Your task to perform on an android device: Show me productivity apps on the Play Store Image 0: 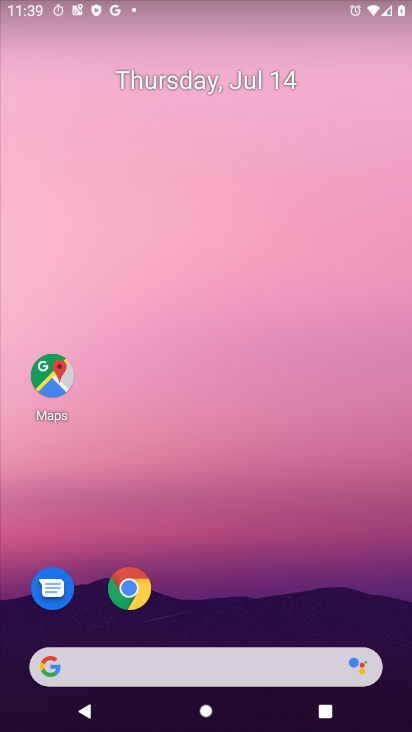
Step 0: press home button
Your task to perform on an android device: Show me productivity apps on the Play Store Image 1: 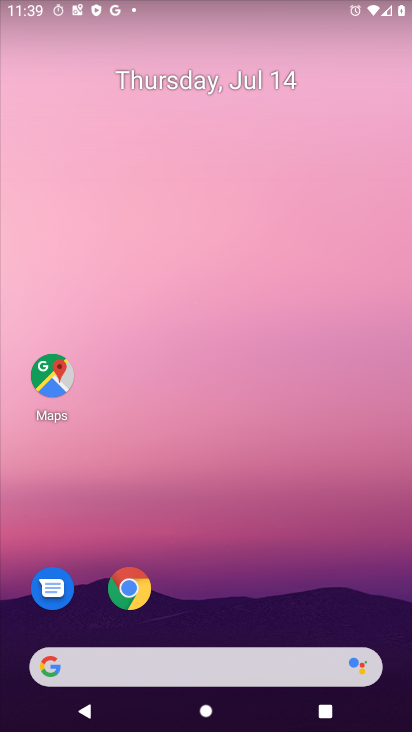
Step 1: drag from (348, 621) to (328, 36)
Your task to perform on an android device: Show me productivity apps on the Play Store Image 2: 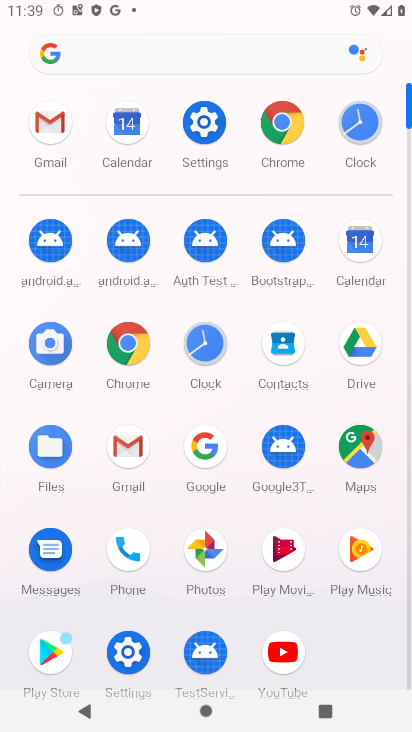
Step 2: click (55, 656)
Your task to perform on an android device: Show me productivity apps on the Play Store Image 3: 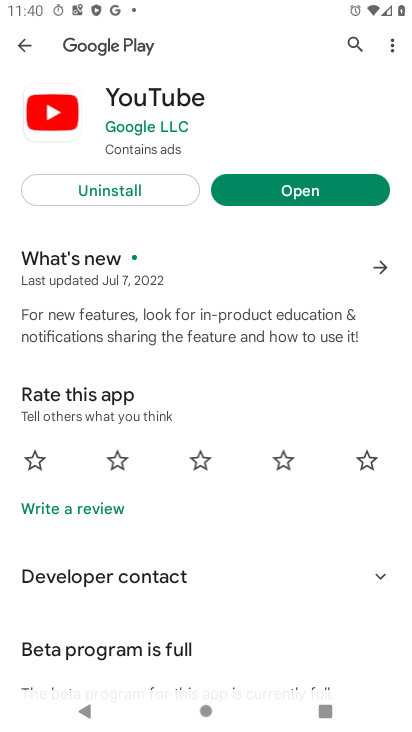
Step 3: click (353, 47)
Your task to perform on an android device: Show me productivity apps on the Play Store Image 4: 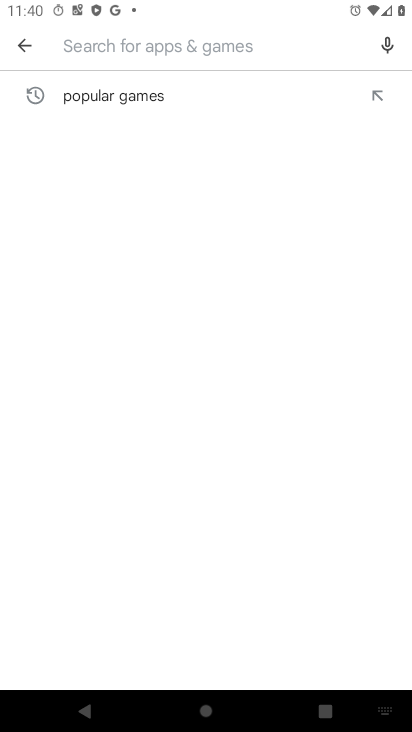
Step 4: type " productivity apps "
Your task to perform on an android device: Show me productivity apps on the Play Store Image 5: 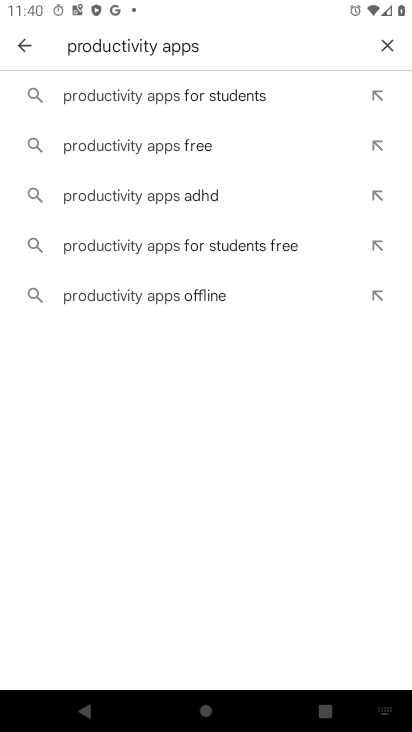
Step 5: click (199, 143)
Your task to perform on an android device: Show me productivity apps on the Play Store Image 6: 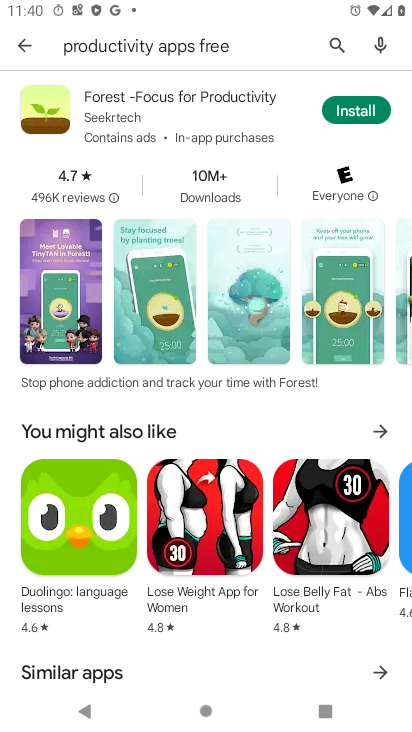
Step 6: task complete